Your task to perform on an android device: find photos in the google photos app Image 0: 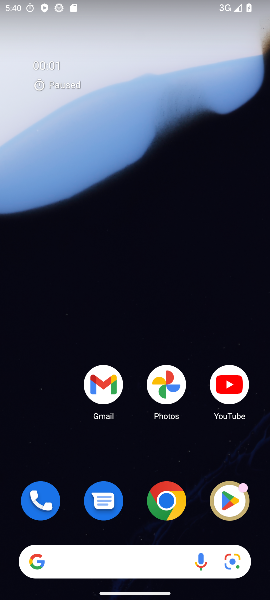
Step 0: click (163, 396)
Your task to perform on an android device: find photos in the google photos app Image 1: 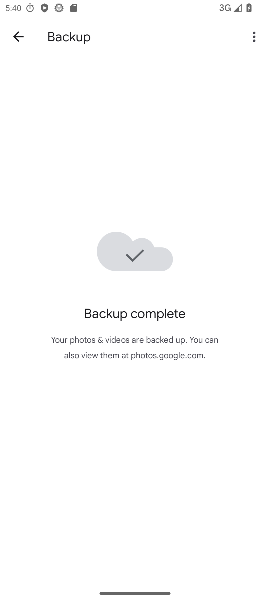
Step 1: click (11, 37)
Your task to perform on an android device: find photos in the google photos app Image 2: 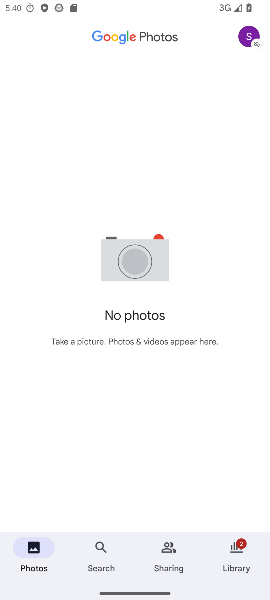
Step 2: task complete